Your task to perform on an android device: check storage Image 0: 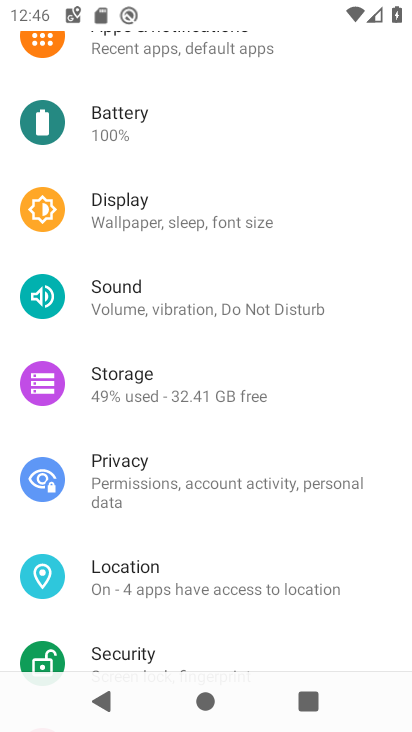
Step 0: click (176, 398)
Your task to perform on an android device: check storage Image 1: 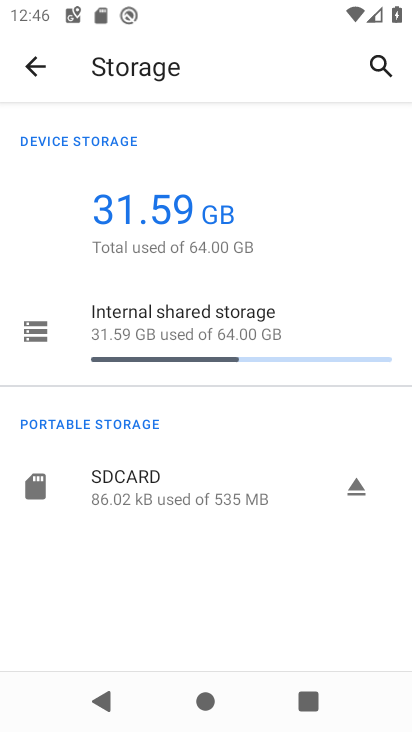
Step 1: task complete